Your task to perform on an android device: Add macbook to the cart on costco Image 0: 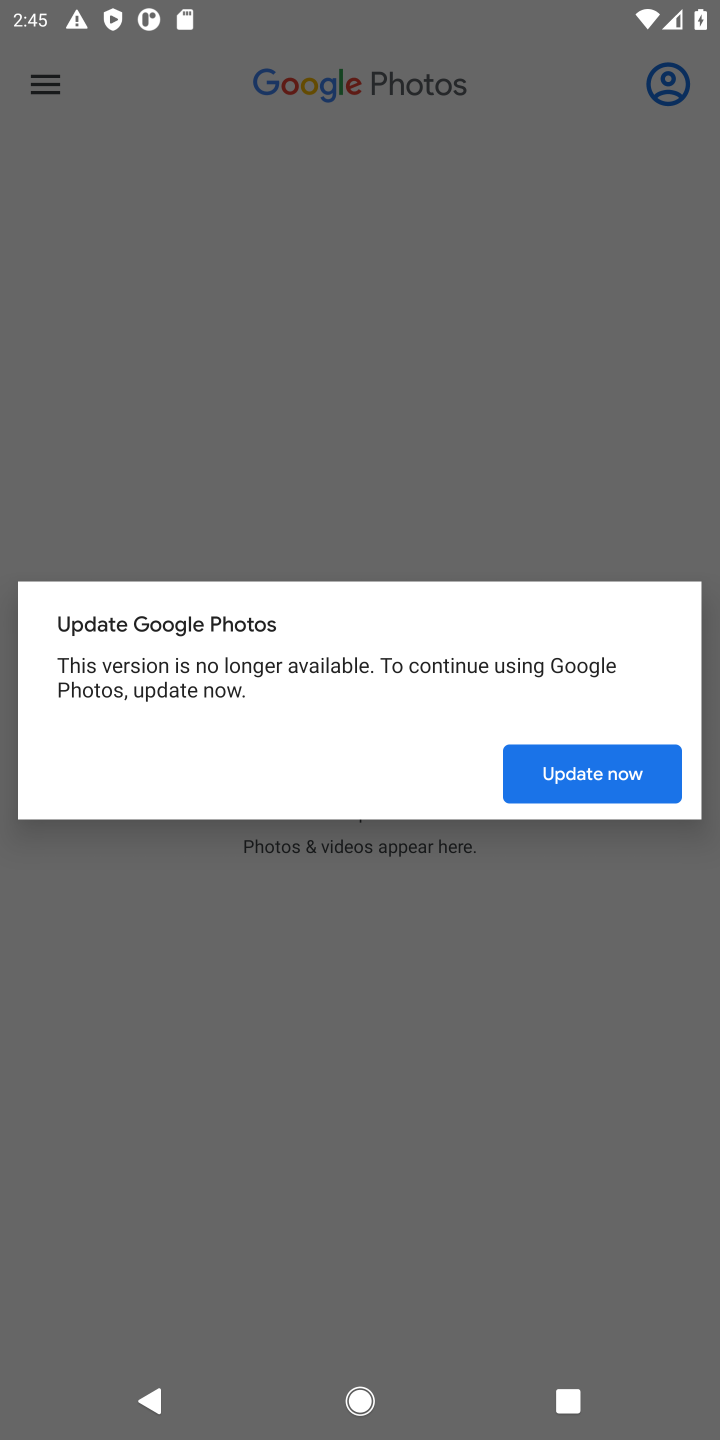
Step 0: press home button
Your task to perform on an android device: Add macbook to the cart on costco Image 1: 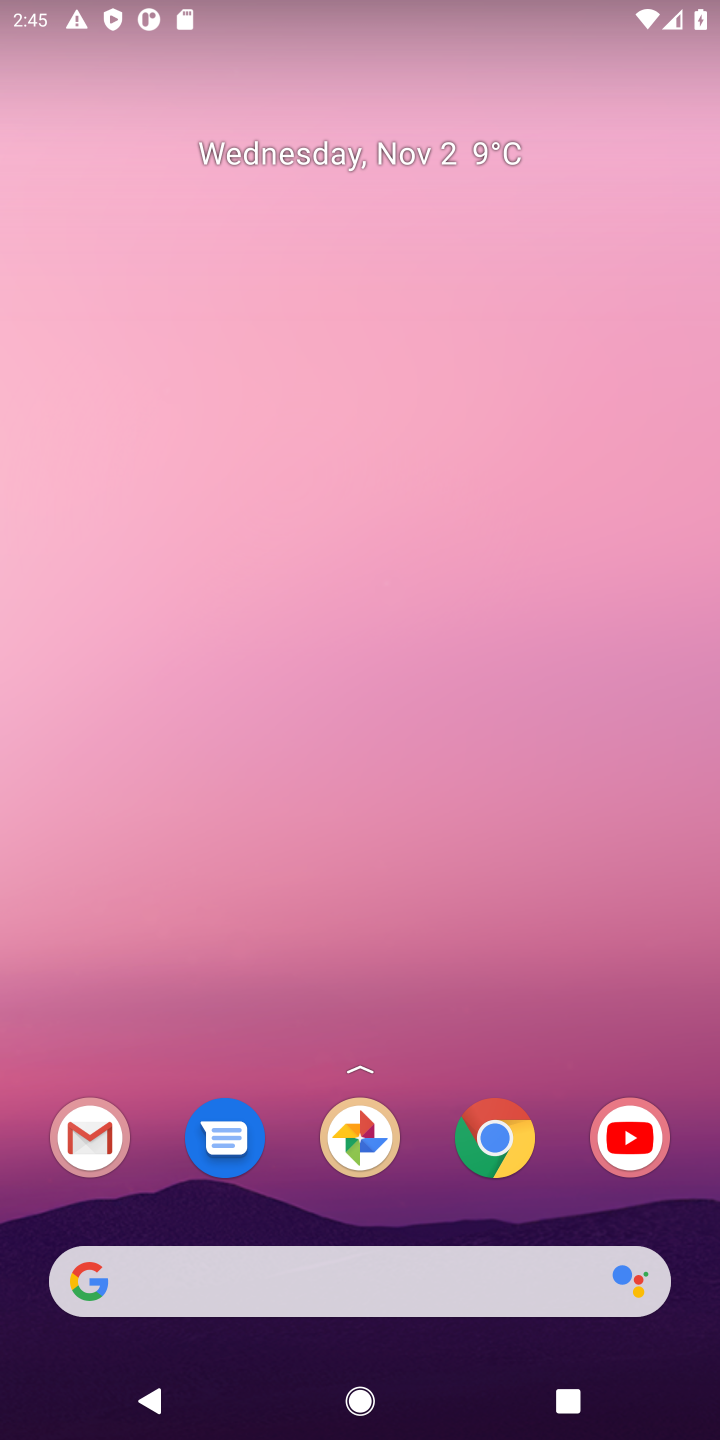
Step 1: click (479, 1111)
Your task to perform on an android device: Add macbook to the cart on costco Image 2: 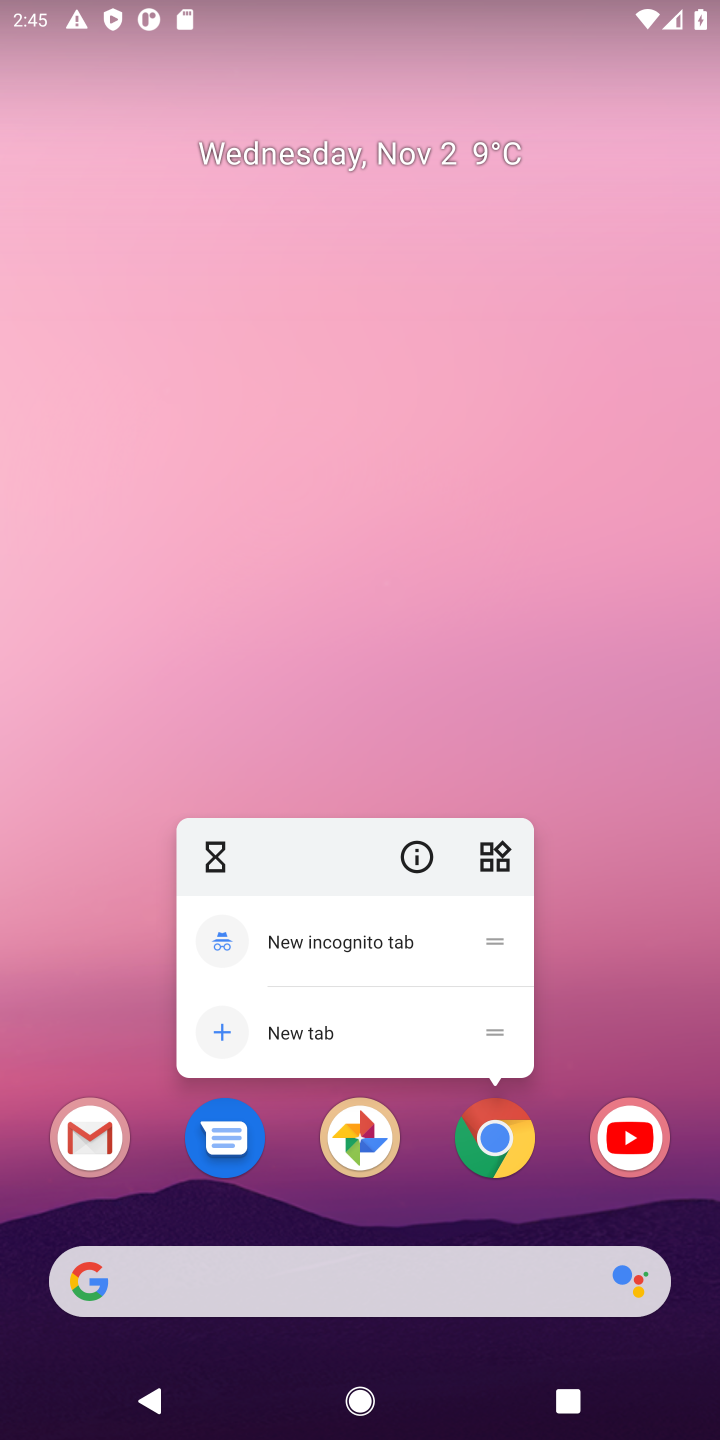
Step 2: click (510, 1151)
Your task to perform on an android device: Add macbook to the cart on costco Image 3: 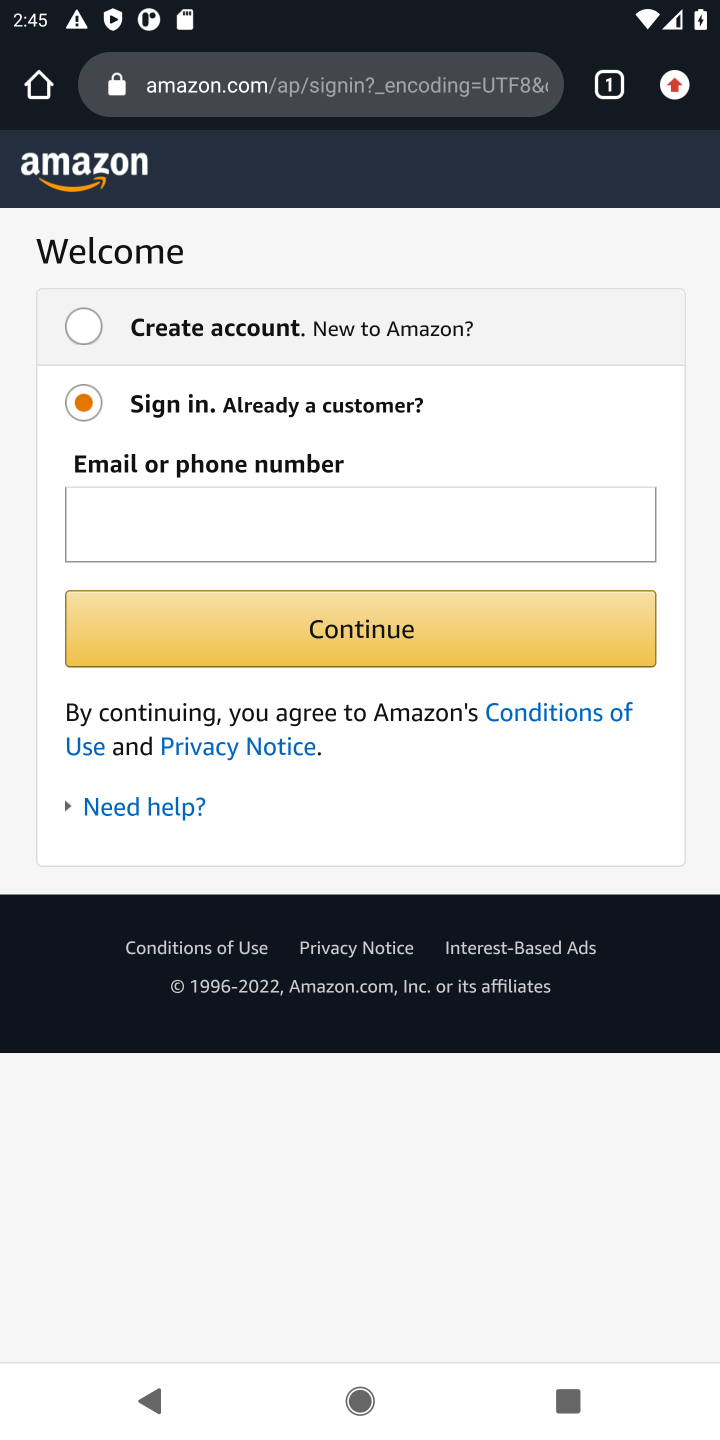
Step 3: click (270, 84)
Your task to perform on an android device: Add macbook to the cart on costco Image 4: 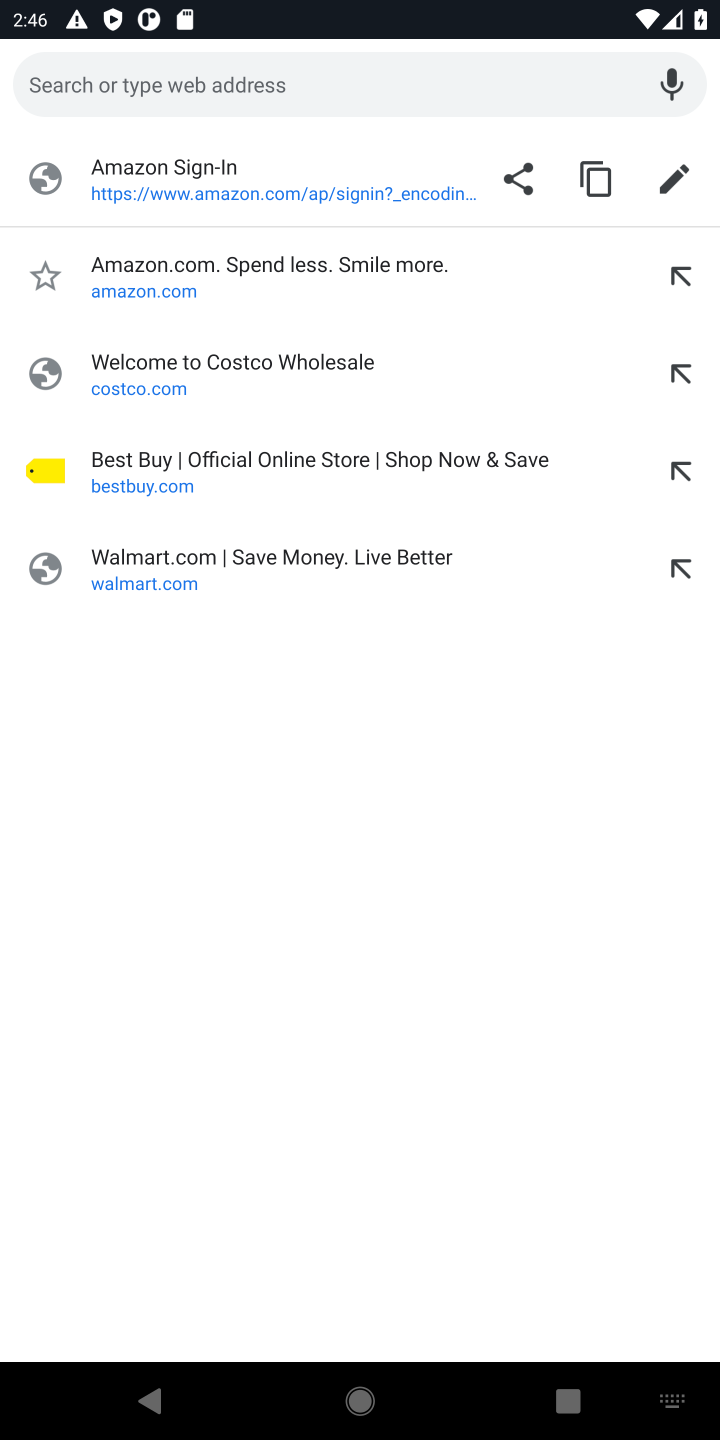
Step 4: type "costco"
Your task to perform on an android device: Add macbook to the cart on costco Image 5: 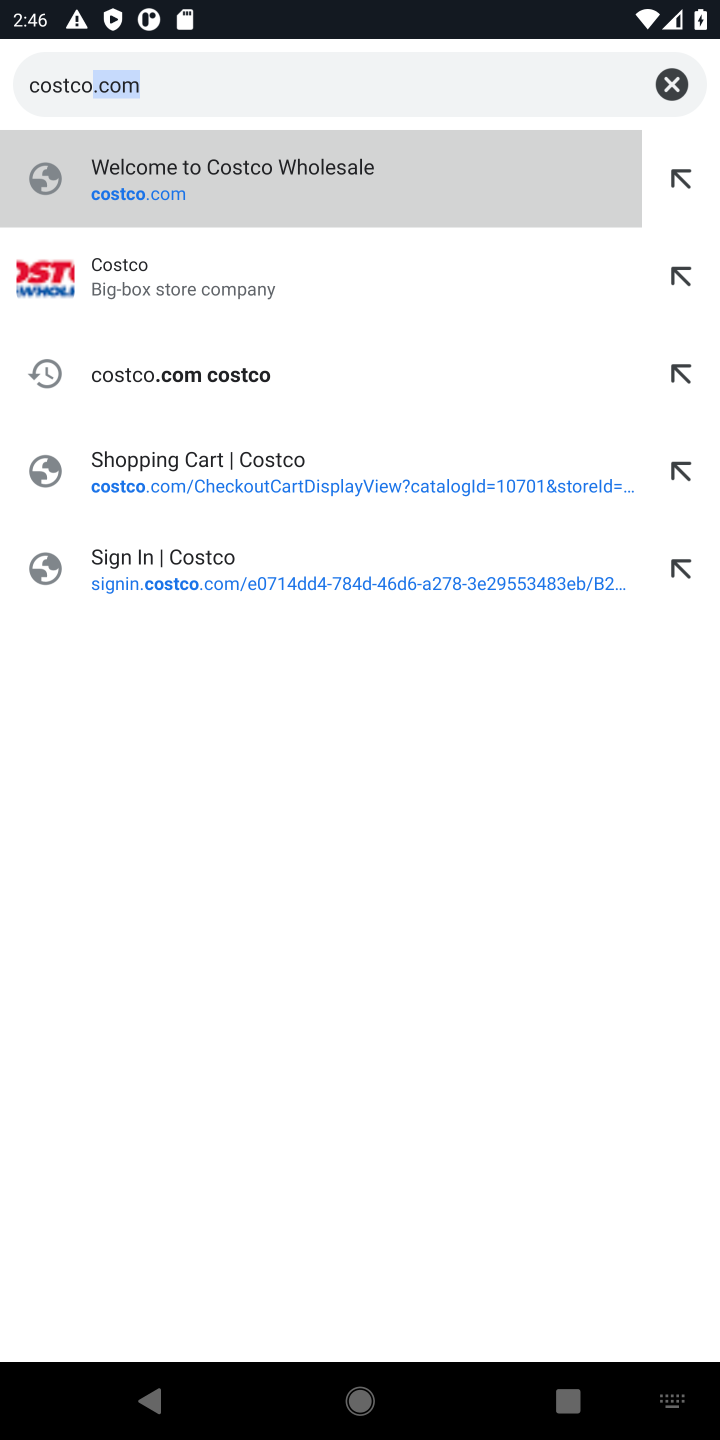
Step 5: click (252, 281)
Your task to perform on an android device: Add macbook to the cart on costco Image 6: 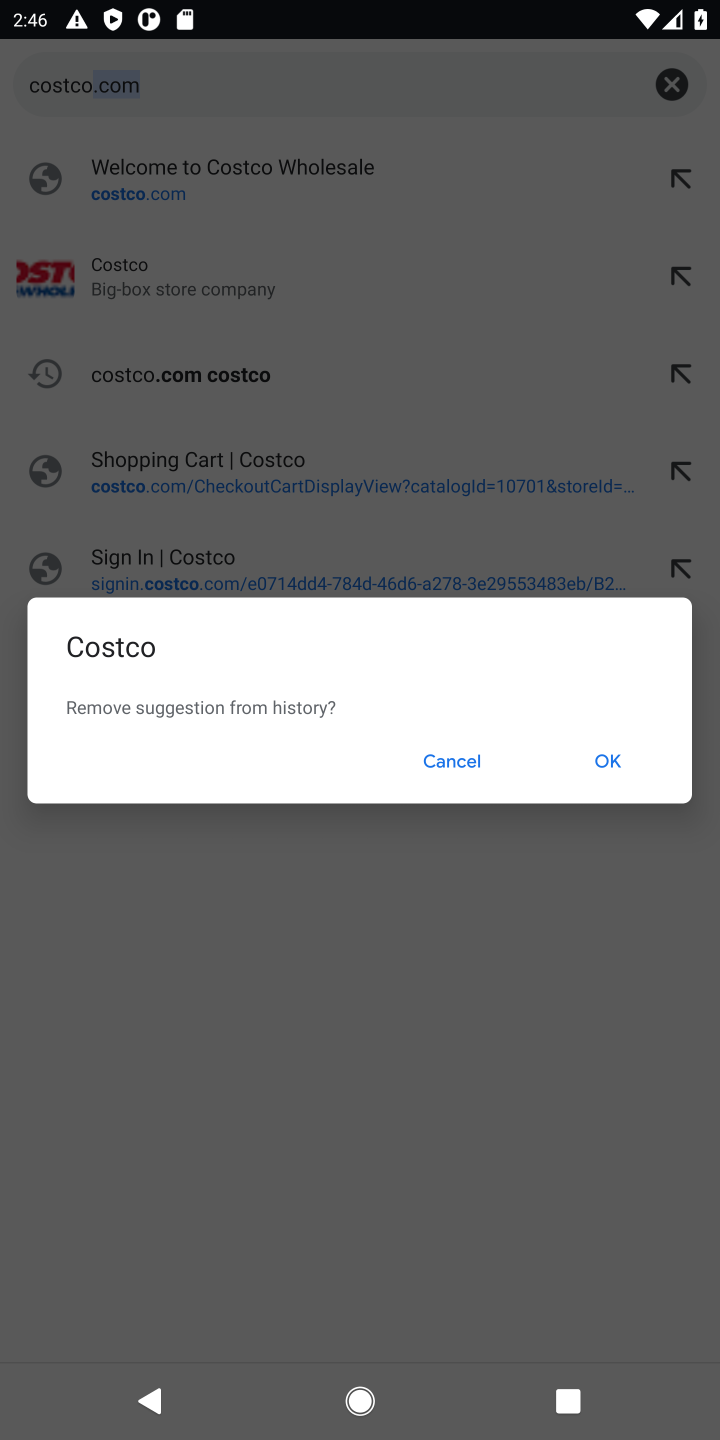
Step 6: click (605, 777)
Your task to perform on an android device: Add macbook to the cart on costco Image 7: 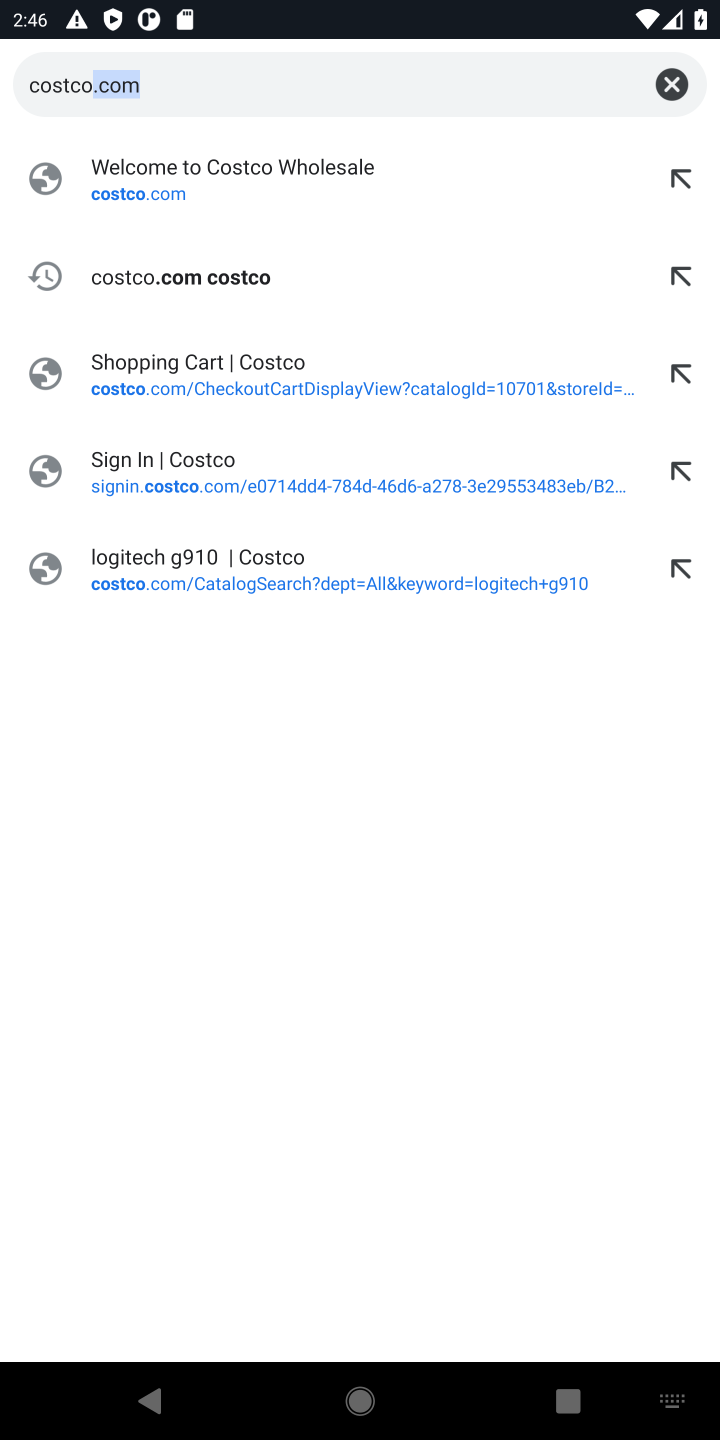
Step 7: click (137, 191)
Your task to perform on an android device: Add macbook to the cart on costco Image 8: 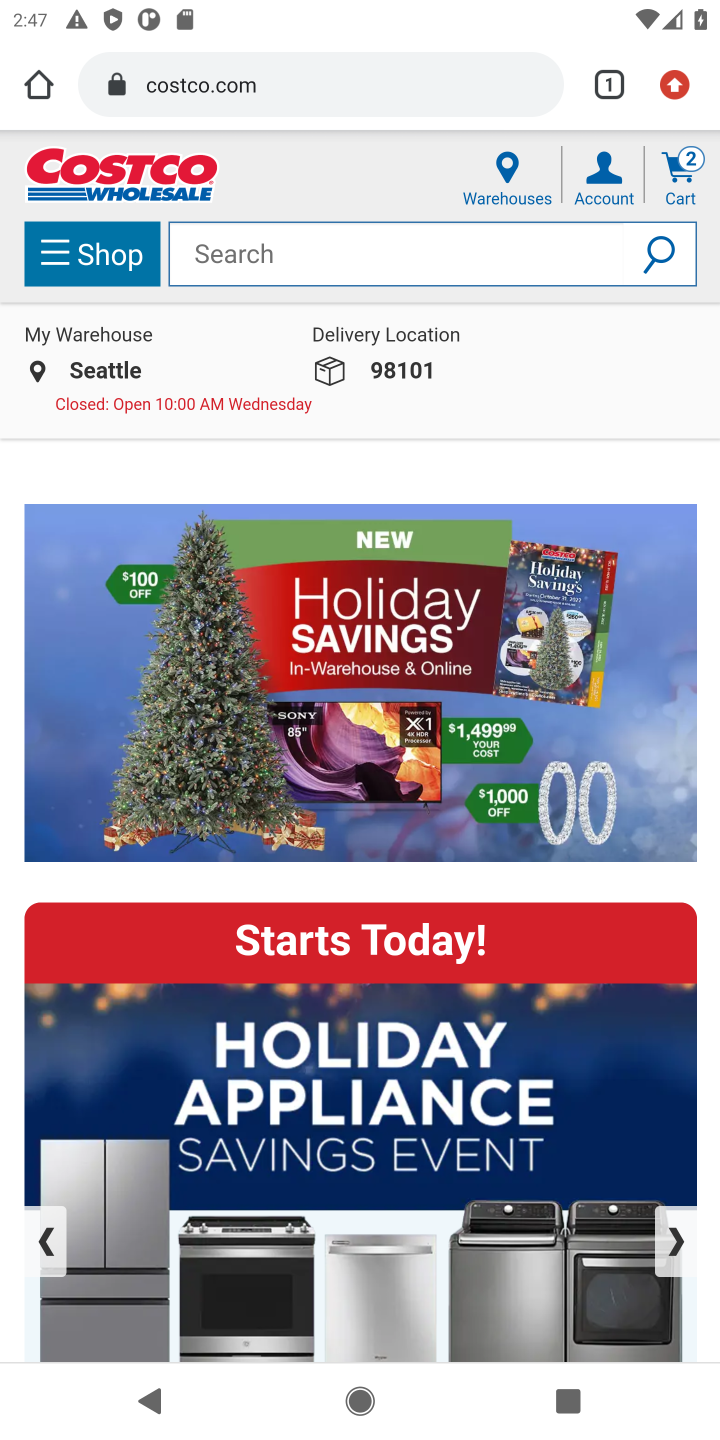
Step 8: click (539, 236)
Your task to perform on an android device: Add macbook to the cart on costco Image 9: 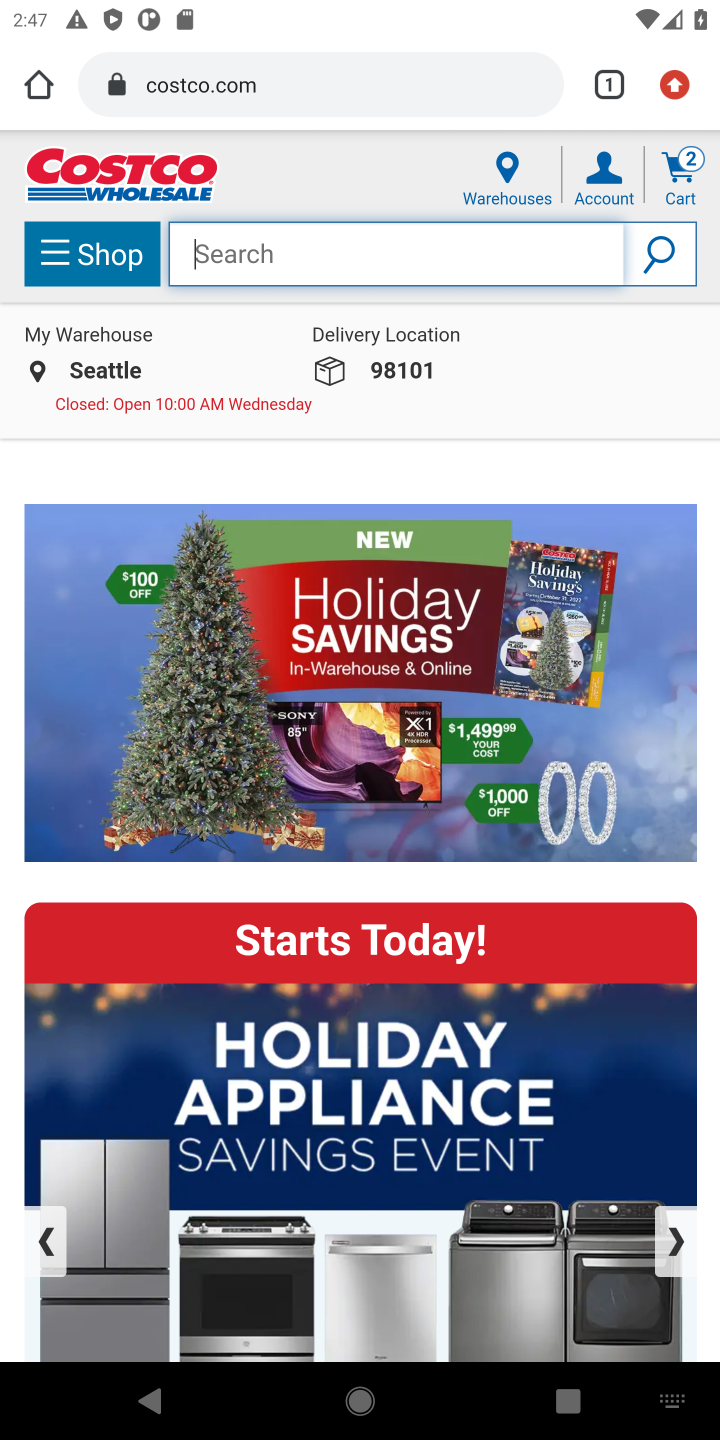
Step 9: type "macbook "
Your task to perform on an android device: Add macbook to the cart on costco Image 10: 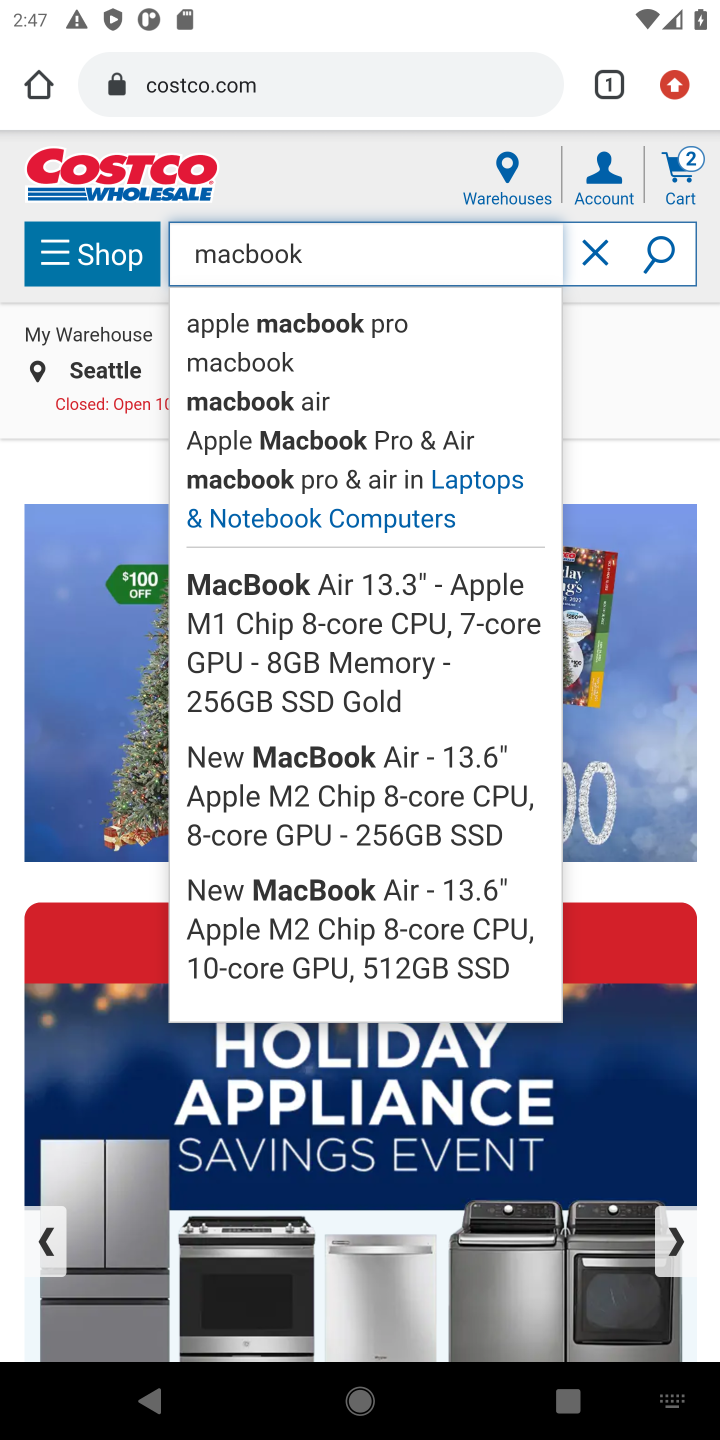
Step 10: click (655, 233)
Your task to perform on an android device: Add macbook to the cart on costco Image 11: 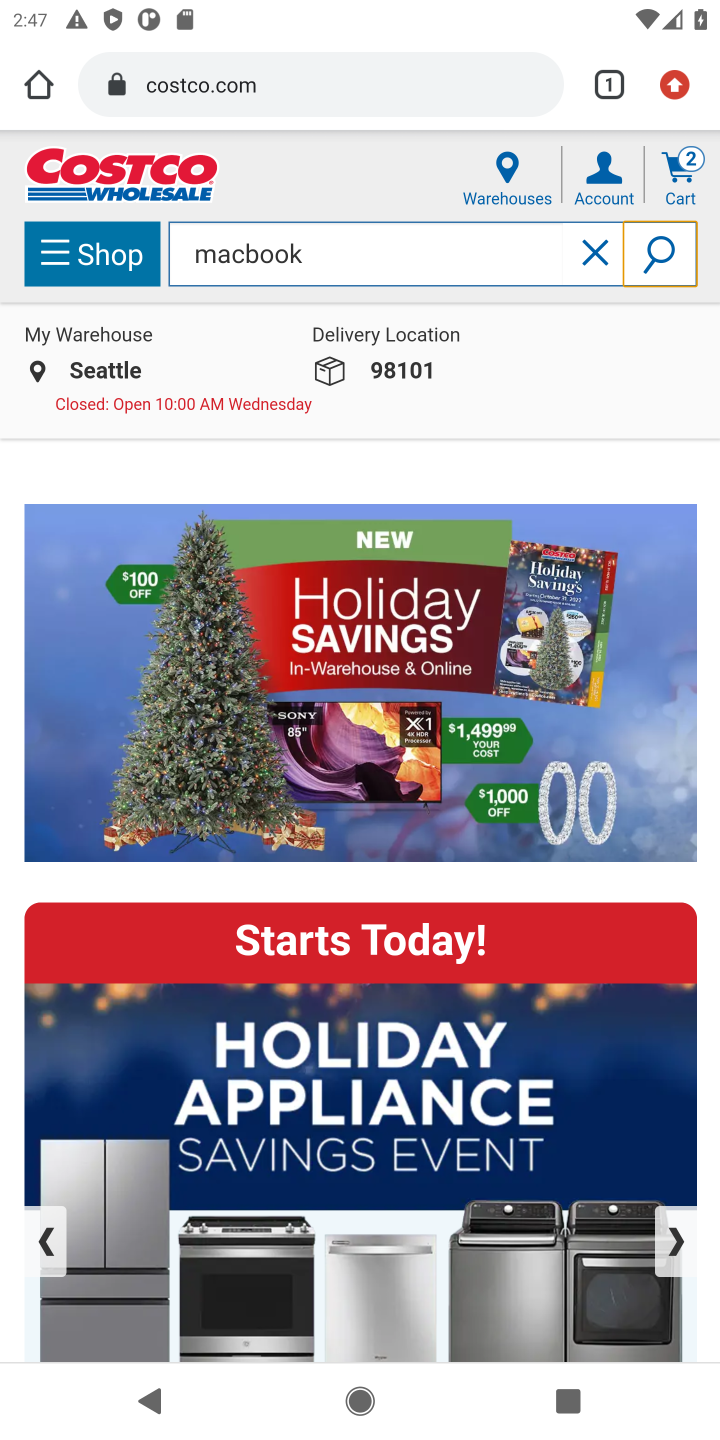
Step 11: click (662, 246)
Your task to perform on an android device: Add macbook to the cart on costco Image 12: 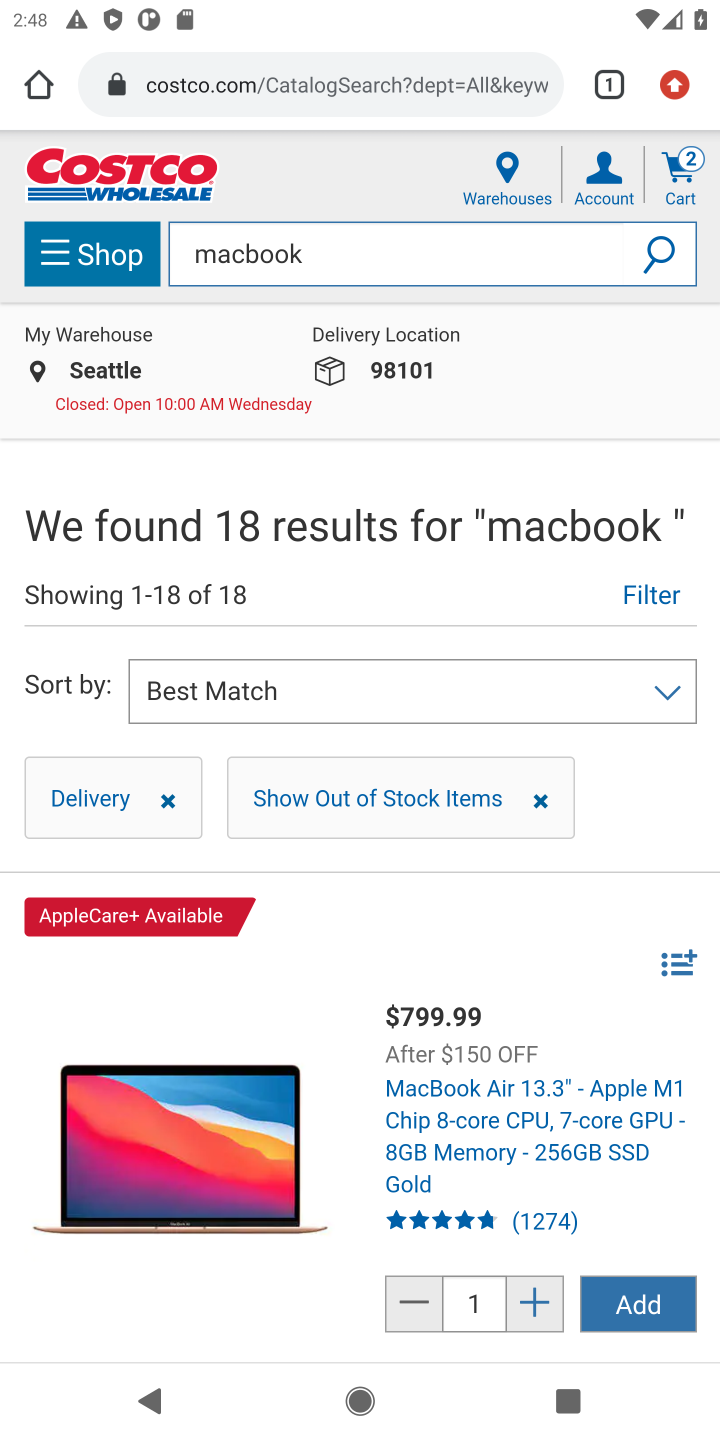
Step 12: click (657, 1318)
Your task to perform on an android device: Add macbook to the cart on costco Image 13: 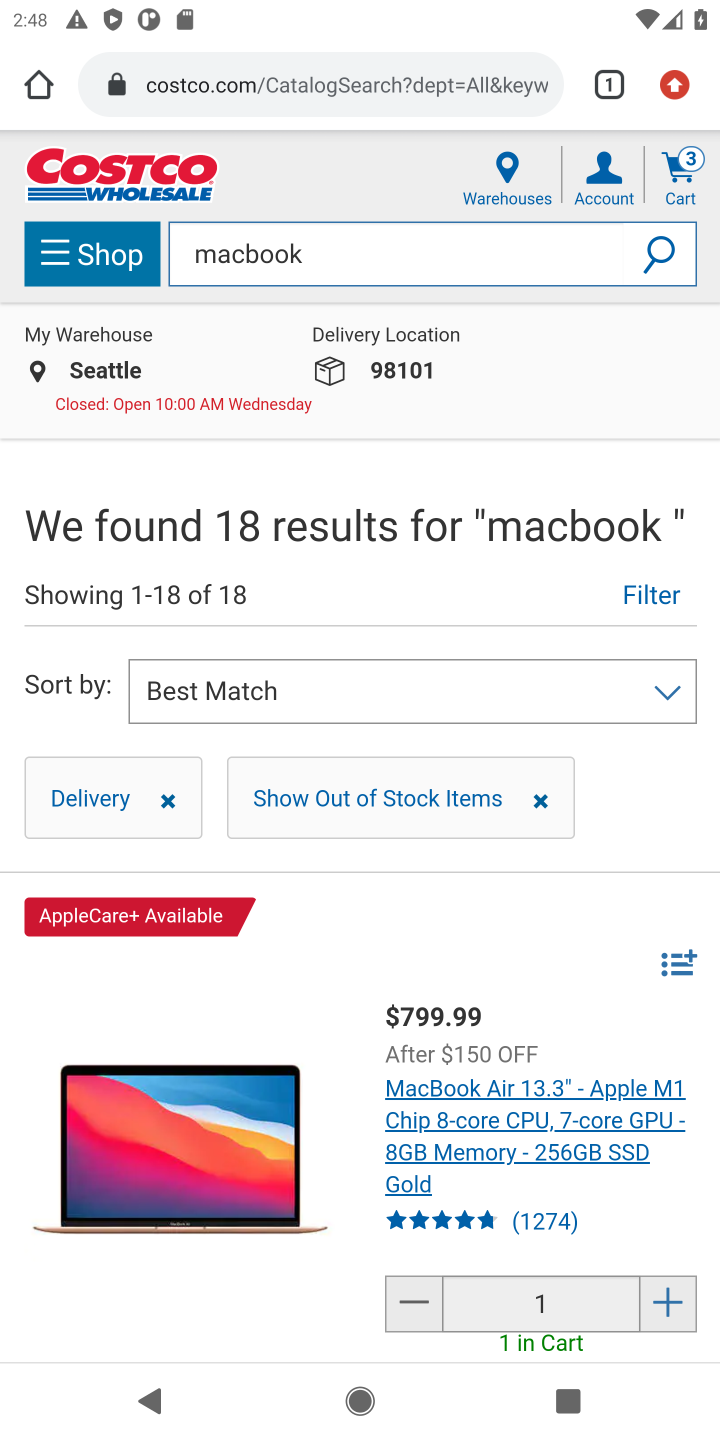
Step 13: task complete